Your task to perform on an android device: toggle notifications settings in the gmail app Image 0: 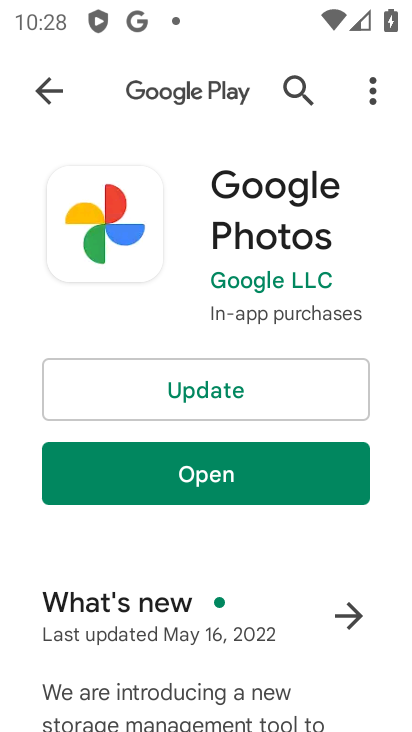
Step 0: press home button
Your task to perform on an android device: toggle notifications settings in the gmail app Image 1: 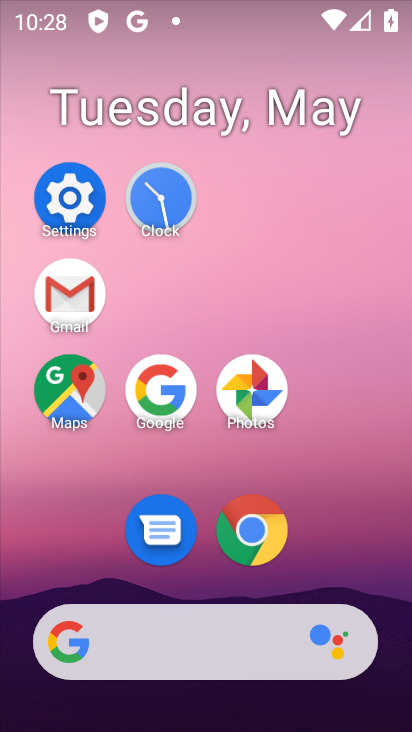
Step 1: click (56, 290)
Your task to perform on an android device: toggle notifications settings in the gmail app Image 2: 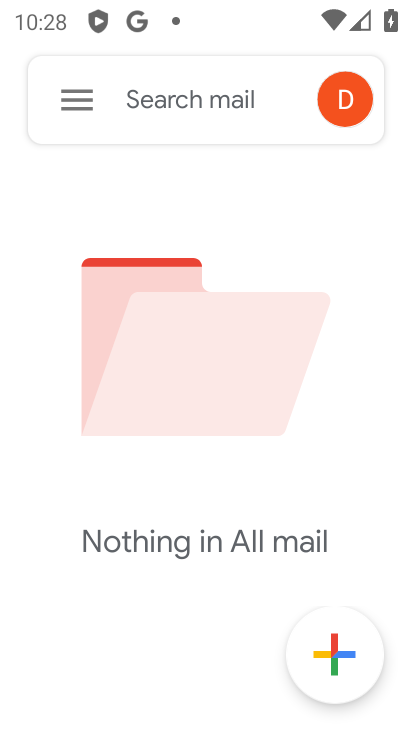
Step 2: click (85, 89)
Your task to perform on an android device: toggle notifications settings in the gmail app Image 3: 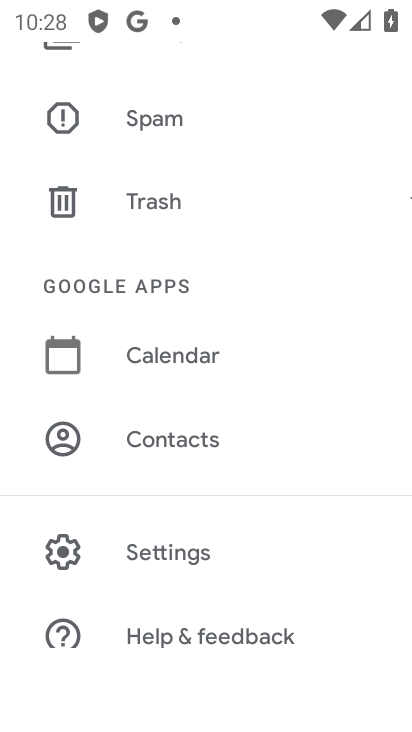
Step 3: click (211, 581)
Your task to perform on an android device: toggle notifications settings in the gmail app Image 4: 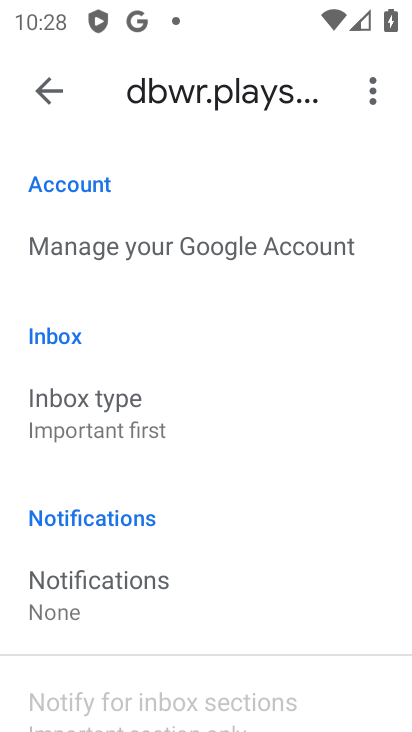
Step 4: click (137, 593)
Your task to perform on an android device: toggle notifications settings in the gmail app Image 5: 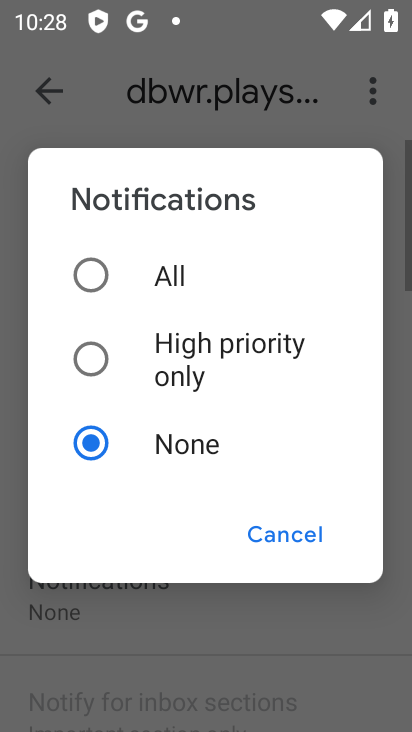
Step 5: click (162, 272)
Your task to perform on an android device: toggle notifications settings in the gmail app Image 6: 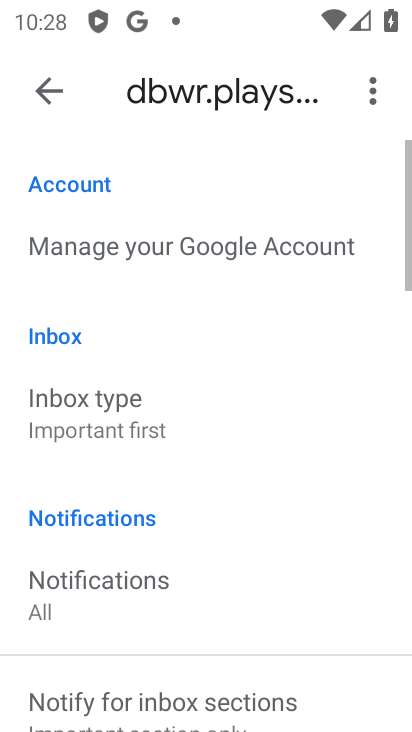
Step 6: task complete